Your task to perform on an android device: empty trash in the gmail app Image 0: 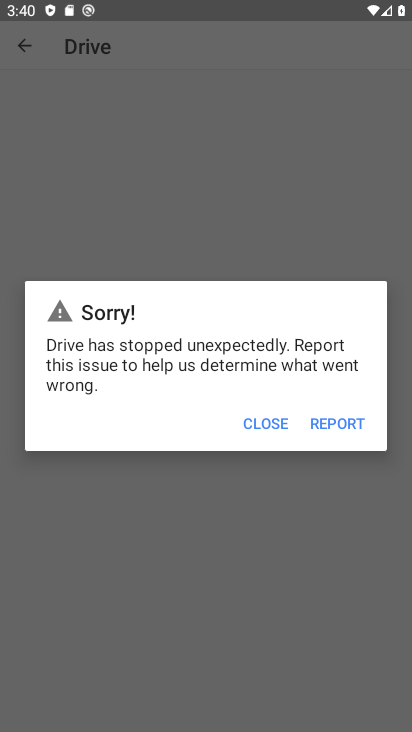
Step 0: press home button
Your task to perform on an android device: empty trash in the gmail app Image 1: 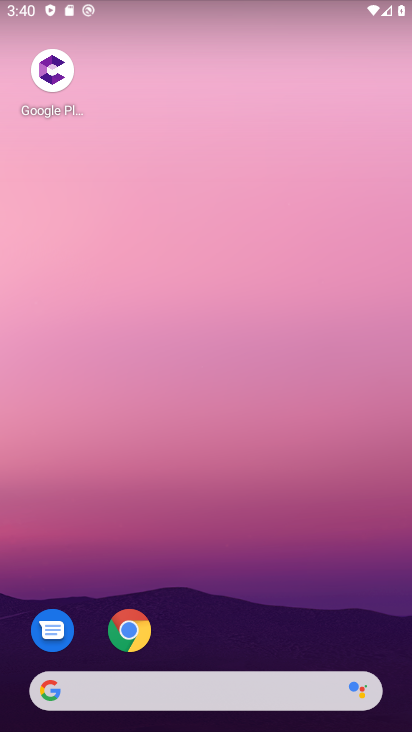
Step 1: drag from (60, 458) to (165, 34)
Your task to perform on an android device: empty trash in the gmail app Image 2: 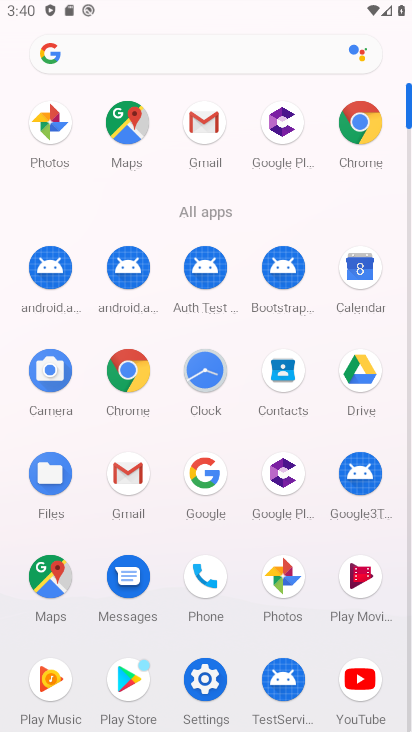
Step 2: click (135, 480)
Your task to perform on an android device: empty trash in the gmail app Image 3: 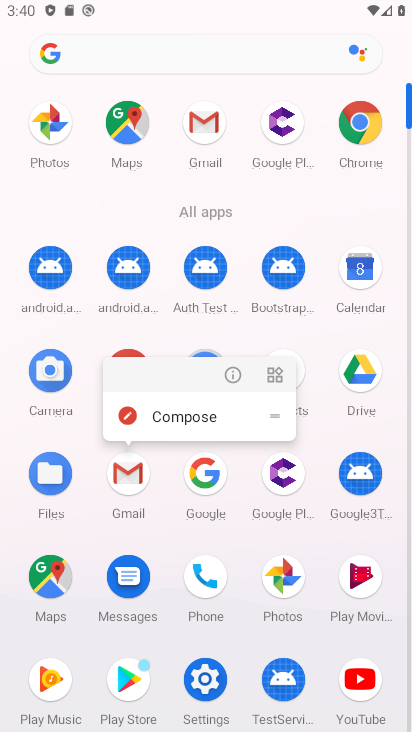
Step 3: click (128, 473)
Your task to perform on an android device: empty trash in the gmail app Image 4: 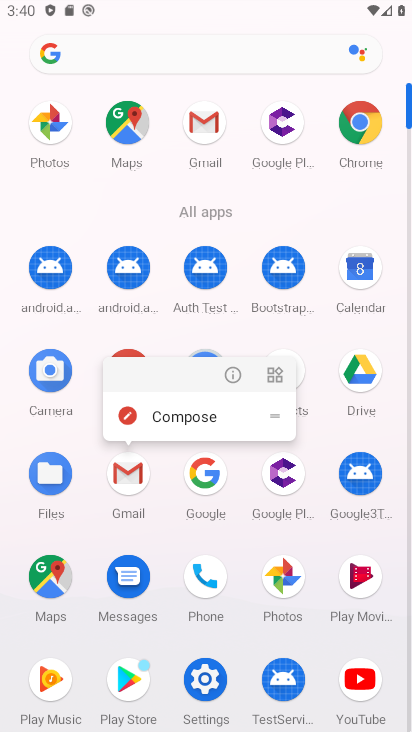
Step 4: click (133, 480)
Your task to perform on an android device: empty trash in the gmail app Image 5: 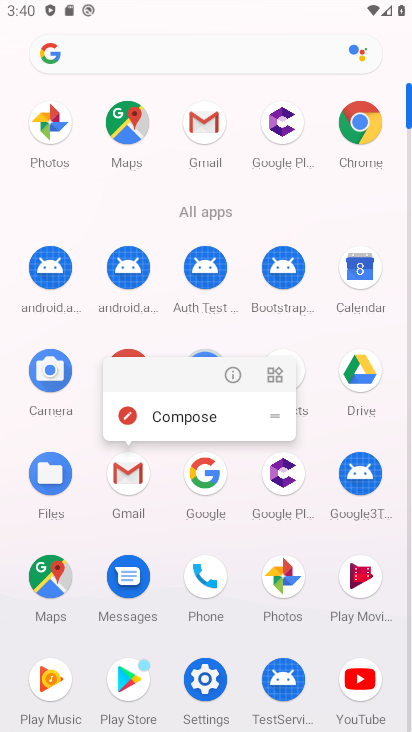
Step 5: click (123, 482)
Your task to perform on an android device: empty trash in the gmail app Image 6: 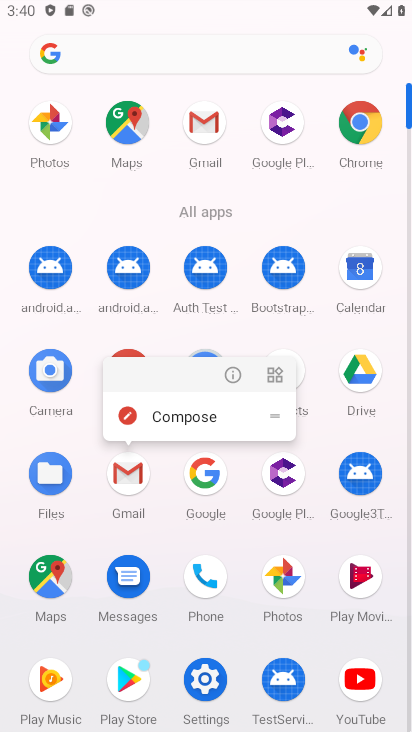
Step 6: task complete